Your task to perform on an android device: toggle airplane mode Image 0: 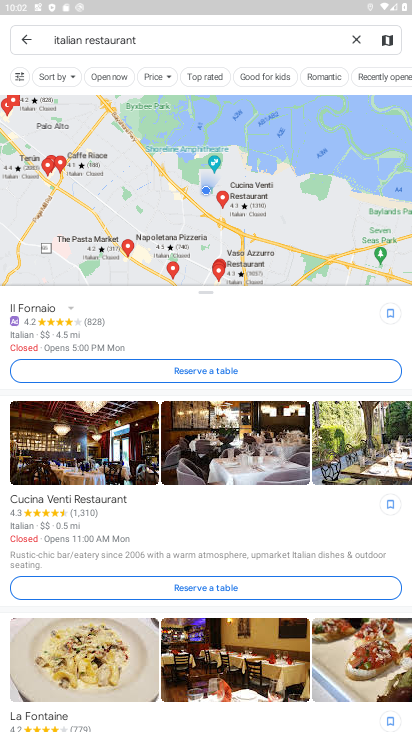
Step 0: press home button
Your task to perform on an android device: toggle airplane mode Image 1: 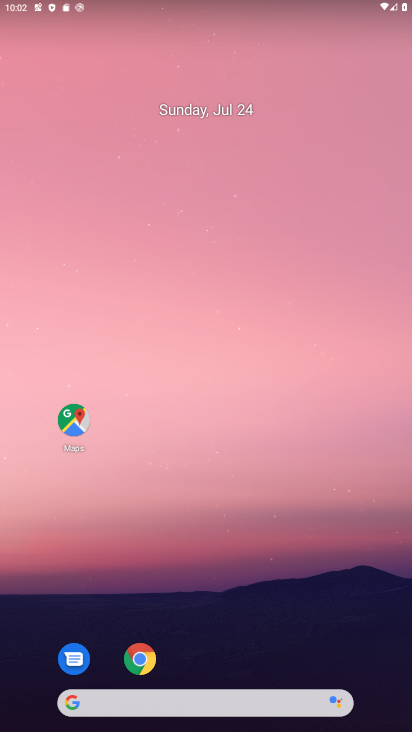
Step 1: drag from (381, 513) to (358, 6)
Your task to perform on an android device: toggle airplane mode Image 2: 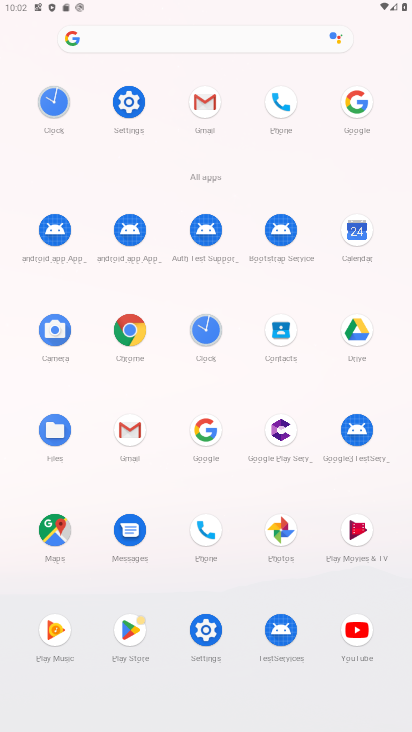
Step 2: click (213, 628)
Your task to perform on an android device: toggle airplane mode Image 3: 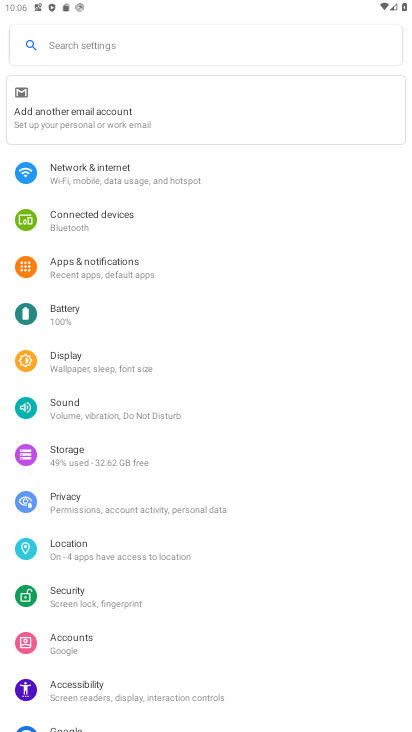
Step 3: task complete